Your task to perform on an android device: Do I have any events this weekend? Image 0: 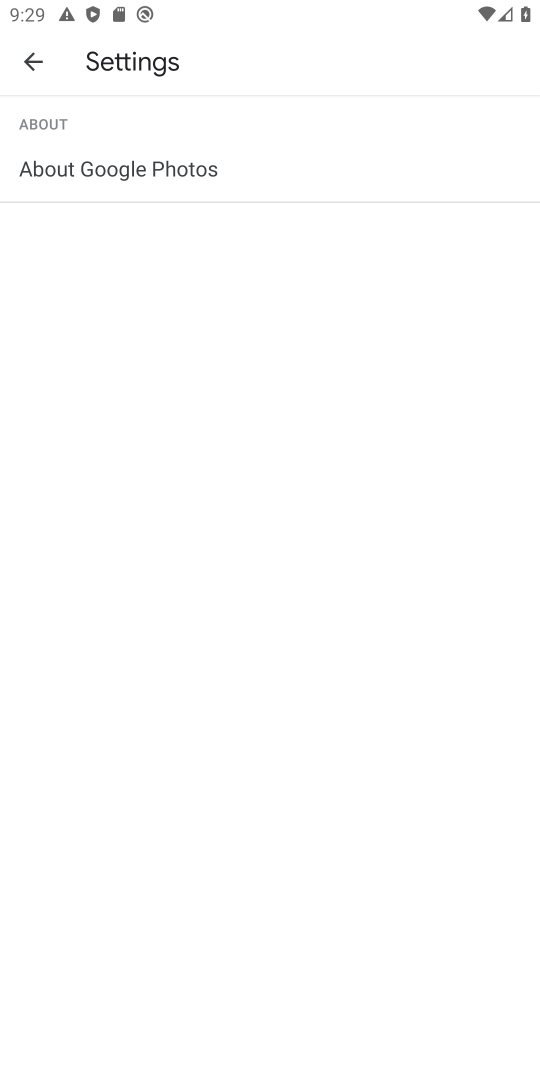
Step 0: press home button
Your task to perform on an android device: Do I have any events this weekend? Image 1: 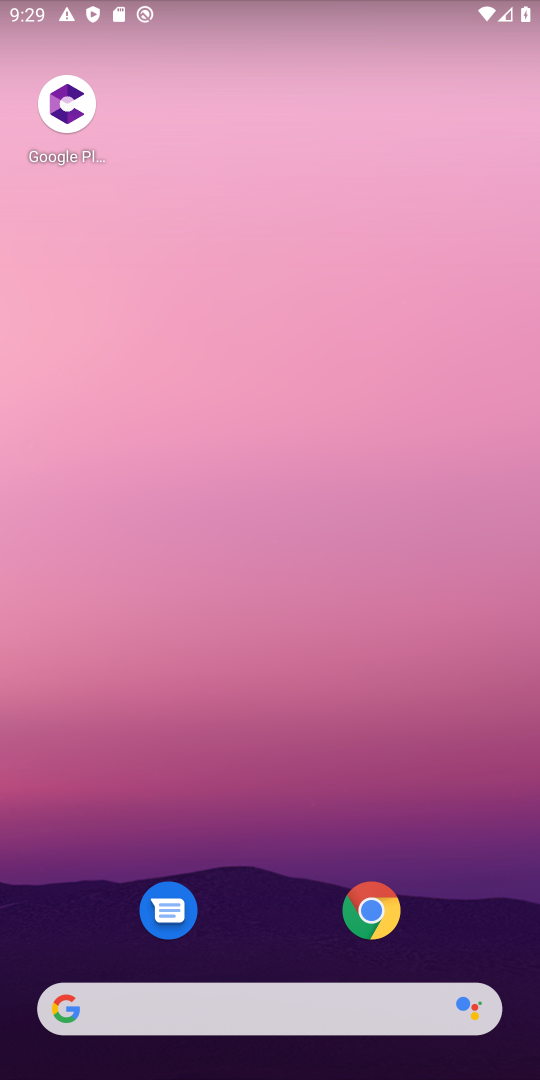
Step 1: drag from (335, 926) to (312, 434)
Your task to perform on an android device: Do I have any events this weekend? Image 2: 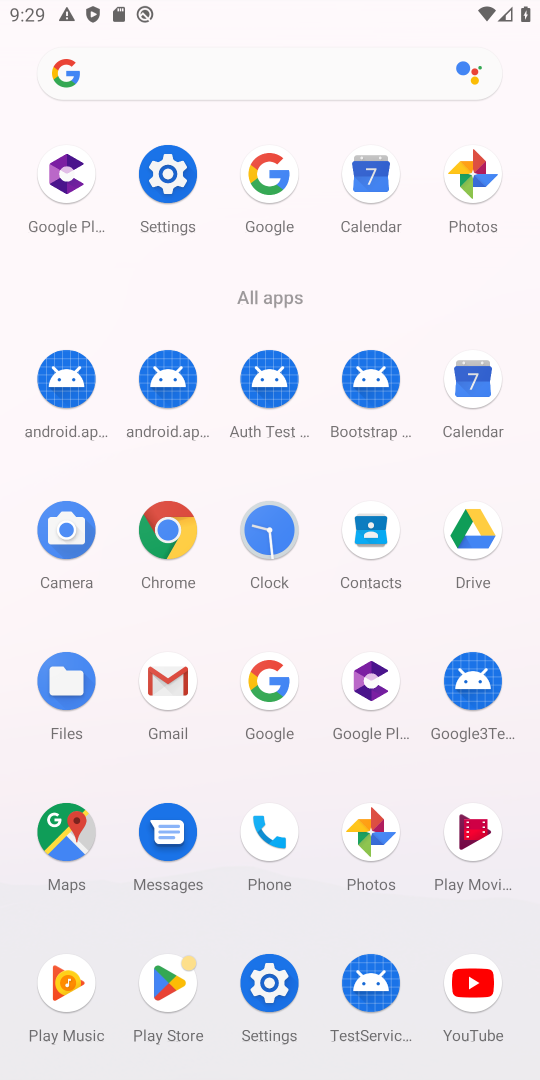
Step 2: click (460, 399)
Your task to perform on an android device: Do I have any events this weekend? Image 3: 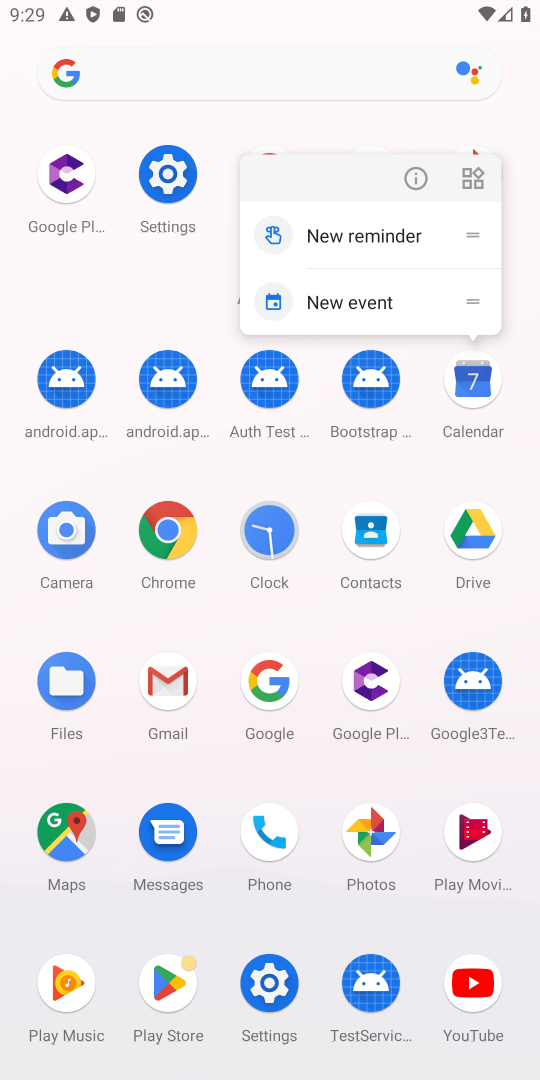
Step 3: click (464, 389)
Your task to perform on an android device: Do I have any events this weekend? Image 4: 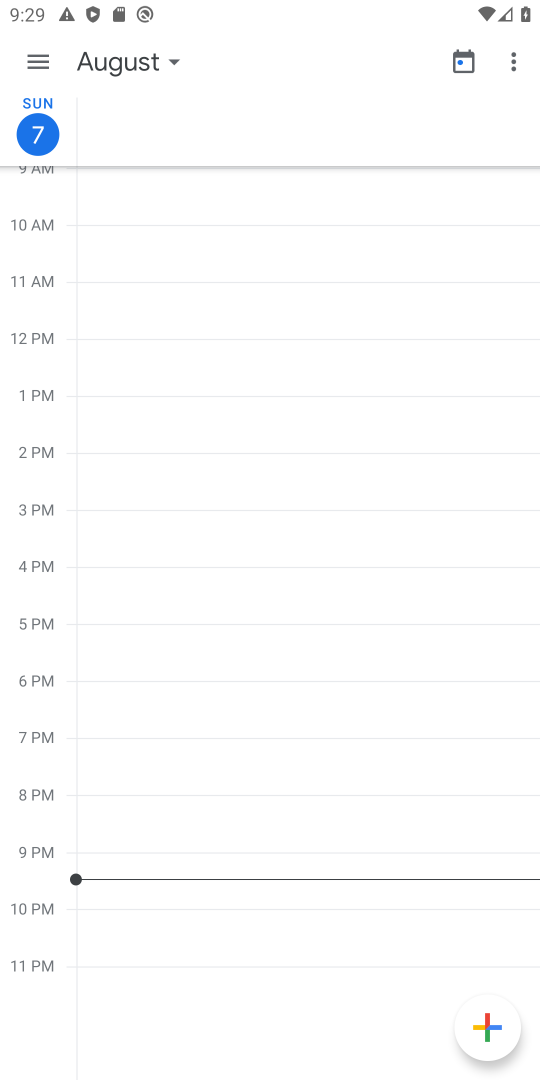
Step 4: click (130, 64)
Your task to perform on an android device: Do I have any events this weekend? Image 5: 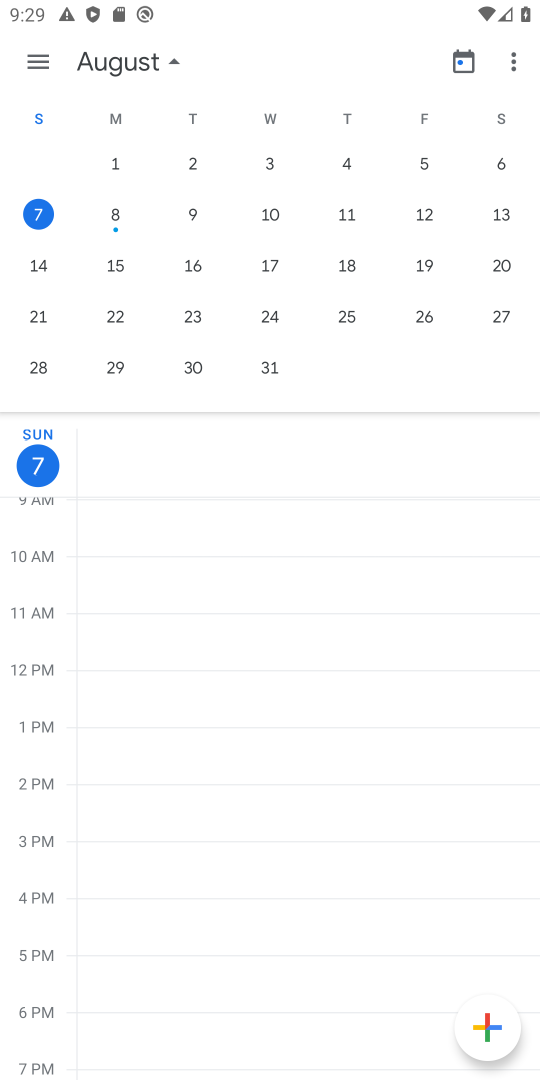
Step 5: click (499, 210)
Your task to perform on an android device: Do I have any events this weekend? Image 6: 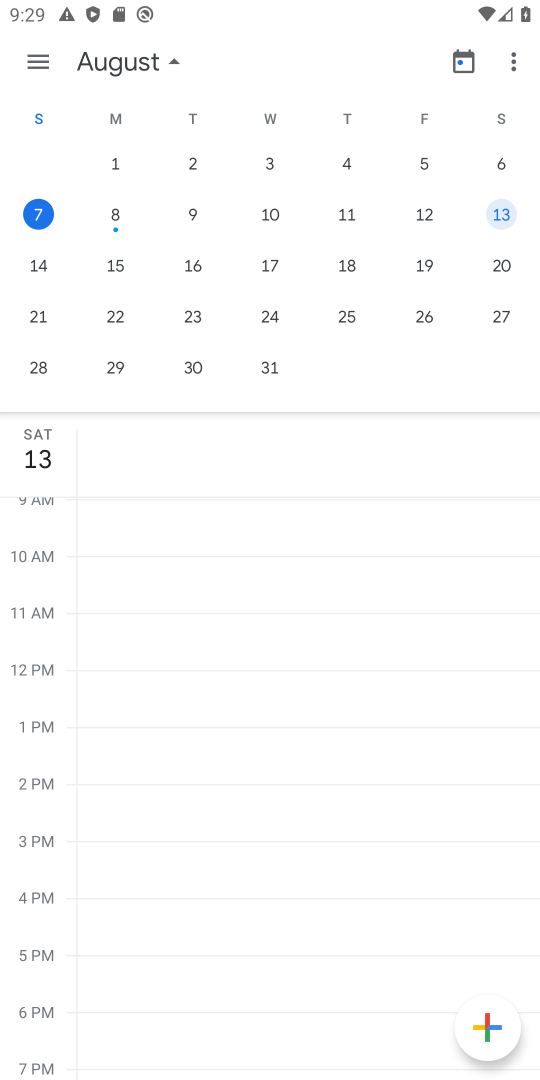
Step 6: click (33, 265)
Your task to perform on an android device: Do I have any events this weekend? Image 7: 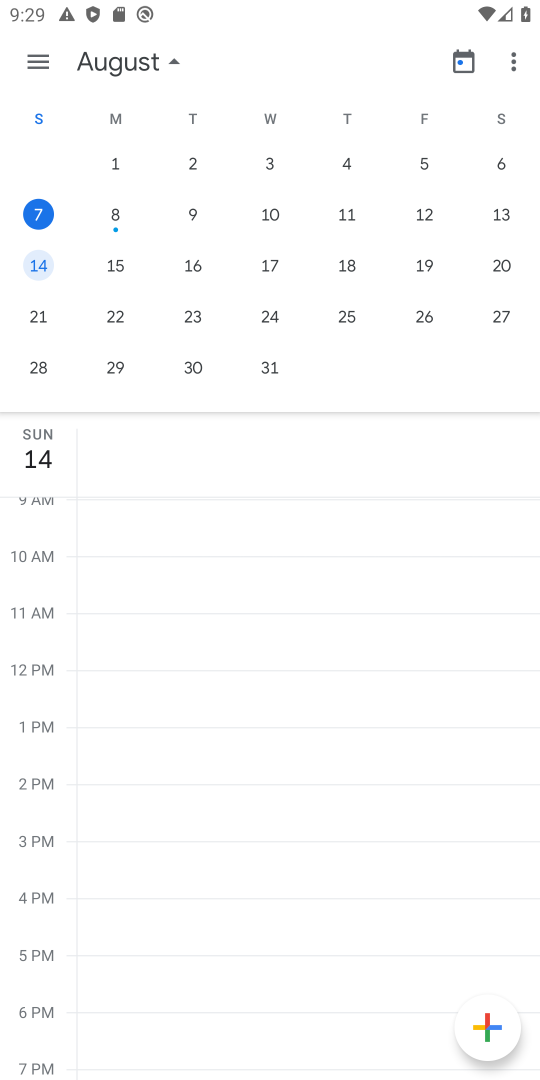
Step 7: task complete